Your task to perform on an android device: Open Chrome and go to settings Image 0: 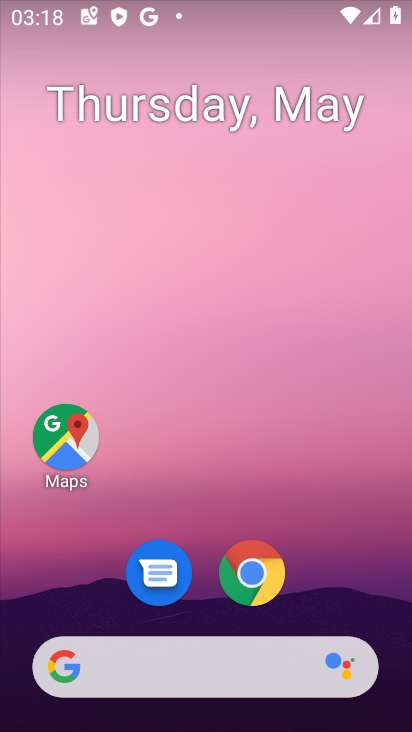
Step 0: click (265, 565)
Your task to perform on an android device: Open Chrome and go to settings Image 1: 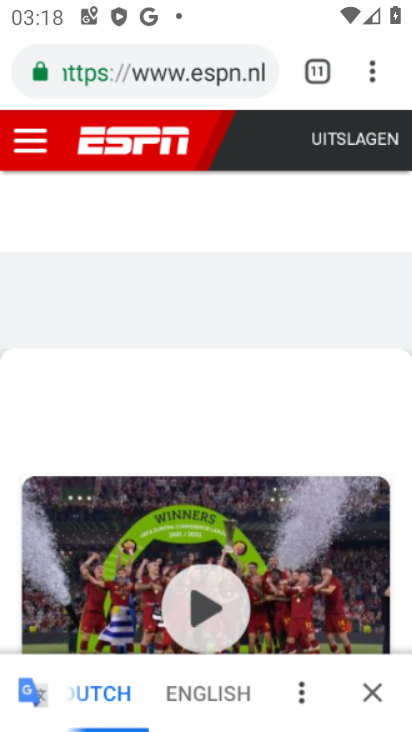
Step 1: click (380, 71)
Your task to perform on an android device: Open Chrome and go to settings Image 2: 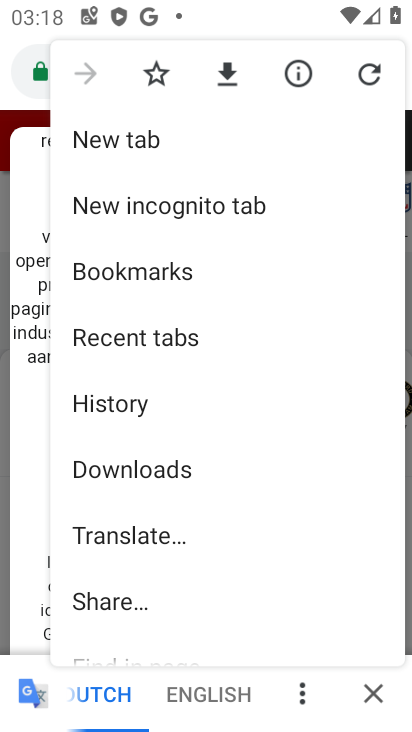
Step 2: drag from (174, 535) to (183, 263)
Your task to perform on an android device: Open Chrome and go to settings Image 3: 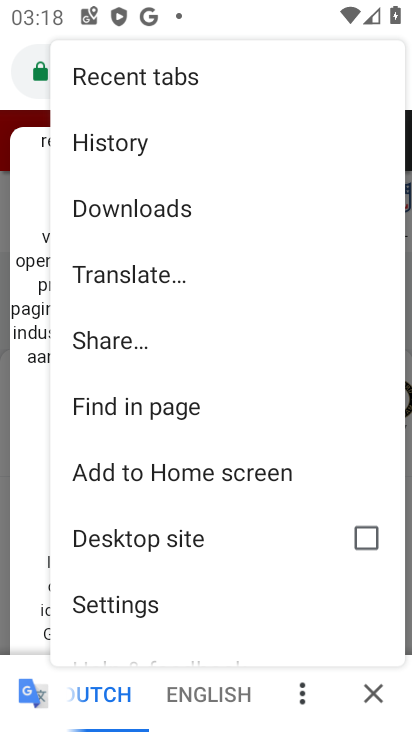
Step 3: click (130, 601)
Your task to perform on an android device: Open Chrome and go to settings Image 4: 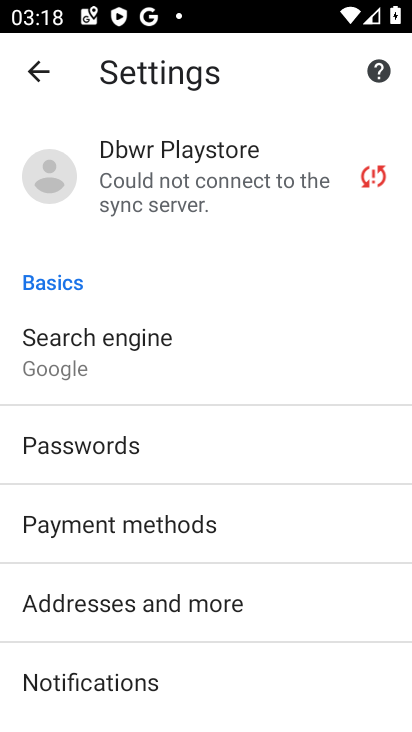
Step 4: task complete